Your task to perform on an android device: Open the Play Movies app and select the watchlist tab. Image 0: 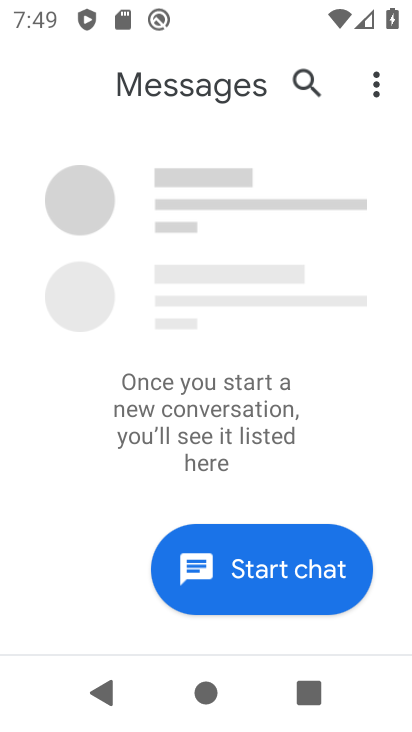
Step 0: drag from (286, 556) to (317, 237)
Your task to perform on an android device: Open the Play Movies app and select the watchlist tab. Image 1: 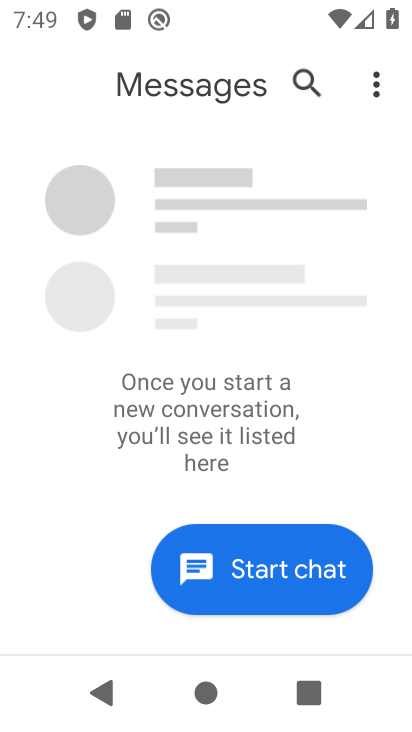
Step 1: press home button
Your task to perform on an android device: Open the Play Movies app and select the watchlist tab. Image 2: 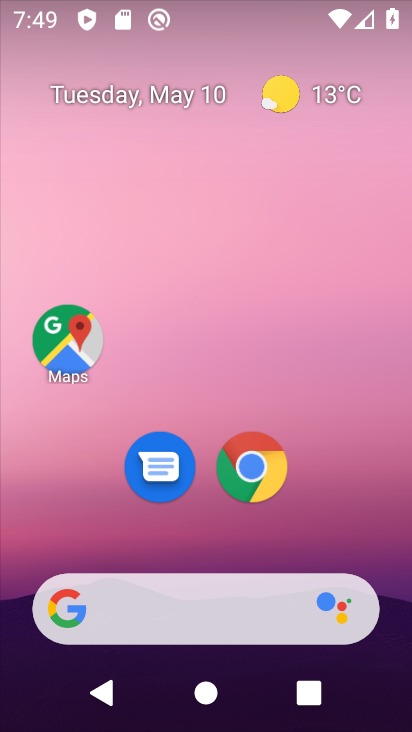
Step 2: drag from (337, 534) to (332, 195)
Your task to perform on an android device: Open the Play Movies app and select the watchlist tab. Image 3: 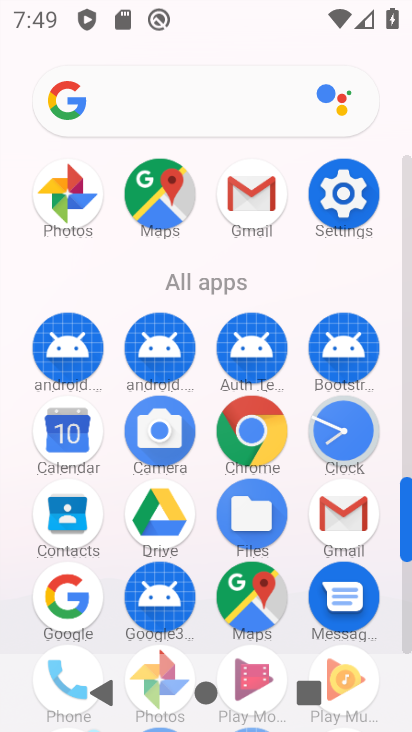
Step 3: drag from (249, 625) to (277, 203)
Your task to perform on an android device: Open the Play Movies app and select the watchlist tab. Image 4: 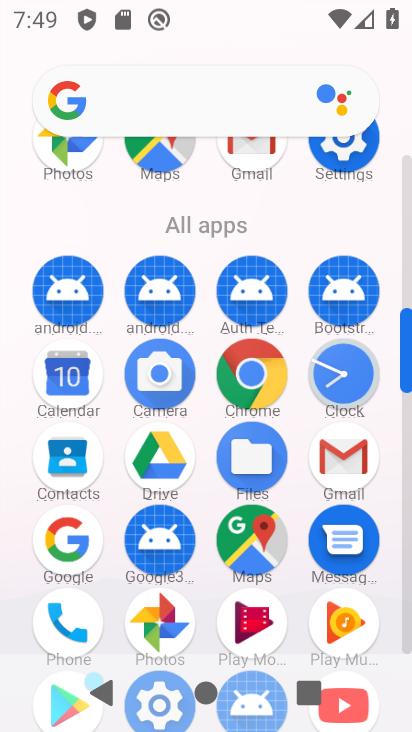
Step 4: drag from (279, 597) to (286, 258)
Your task to perform on an android device: Open the Play Movies app and select the watchlist tab. Image 5: 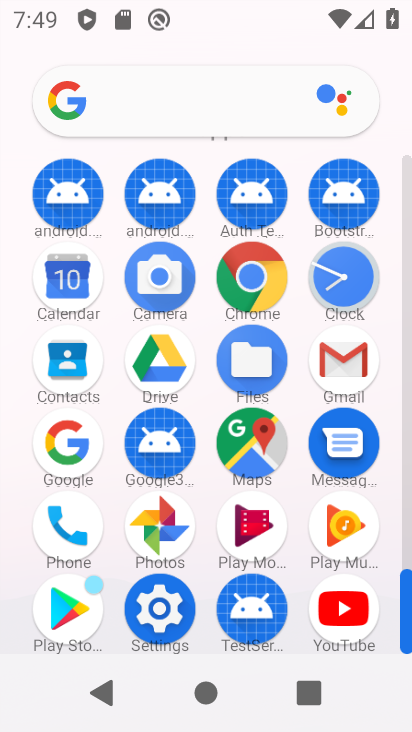
Step 5: click (264, 537)
Your task to perform on an android device: Open the Play Movies app and select the watchlist tab. Image 6: 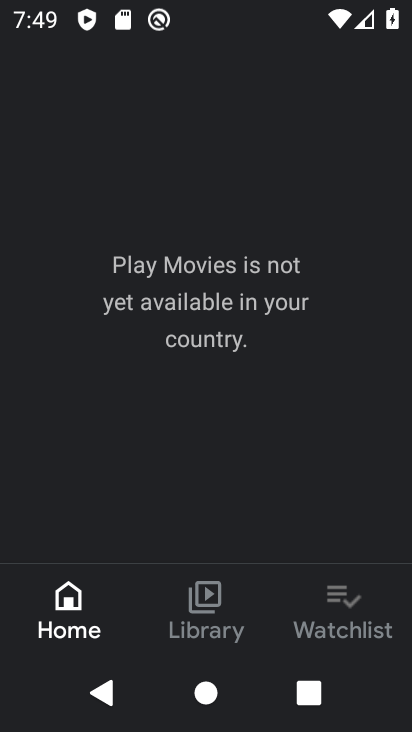
Step 6: click (328, 597)
Your task to perform on an android device: Open the Play Movies app and select the watchlist tab. Image 7: 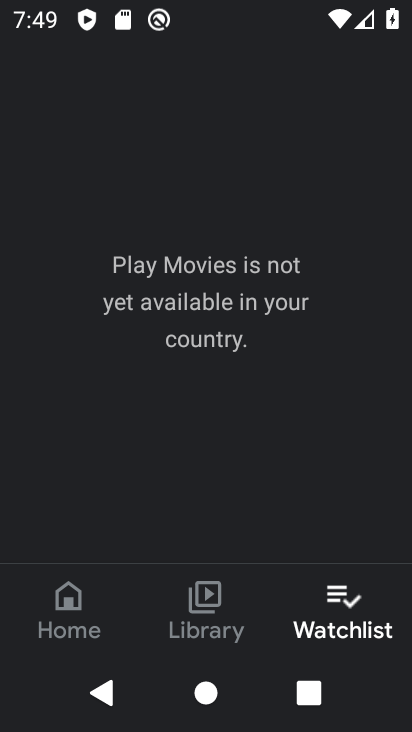
Step 7: task complete